Your task to perform on an android device: change alarm snooze length Image 0: 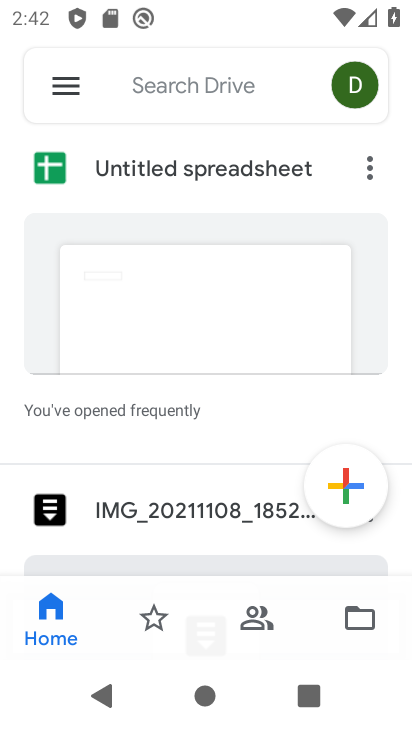
Step 0: press home button
Your task to perform on an android device: change alarm snooze length Image 1: 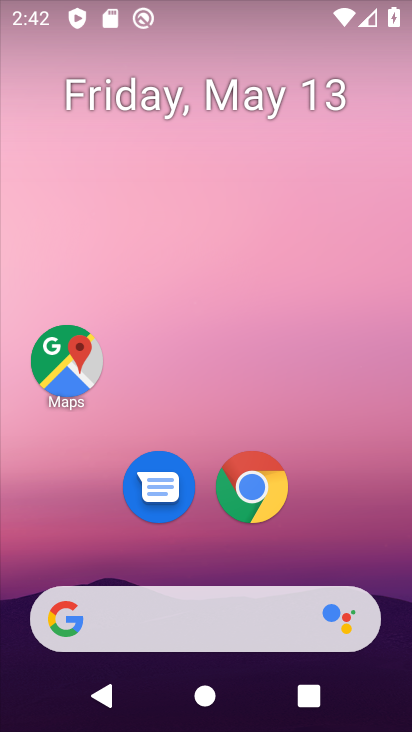
Step 1: drag from (342, 536) to (207, 102)
Your task to perform on an android device: change alarm snooze length Image 2: 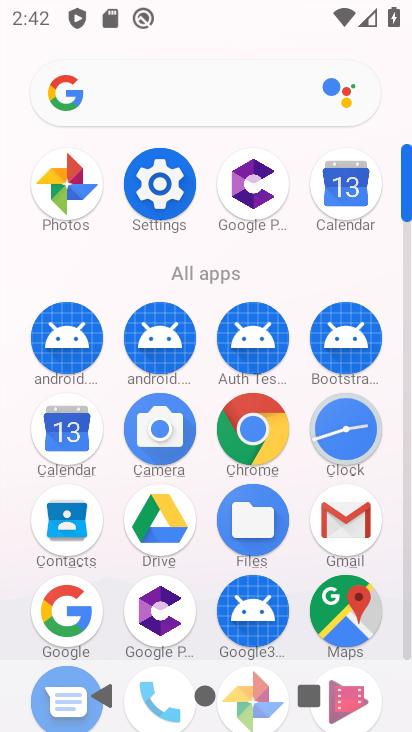
Step 2: click (323, 436)
Your task to perform on an android device: change alarm snooze length Image 3: 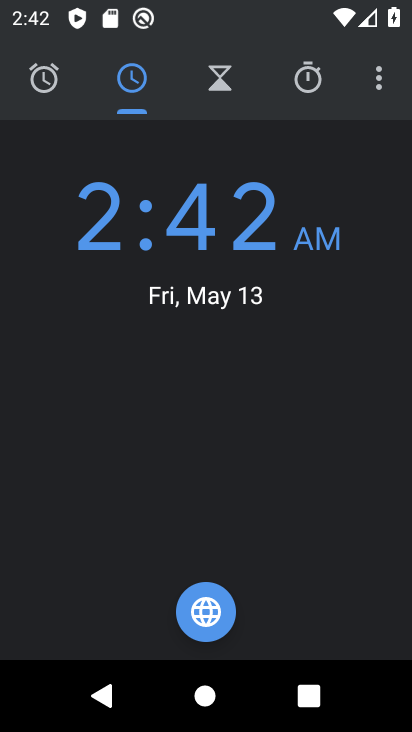
Step 3: click (374, 92)
Your task to perform on an android device: change alarm snooze length Image 4: 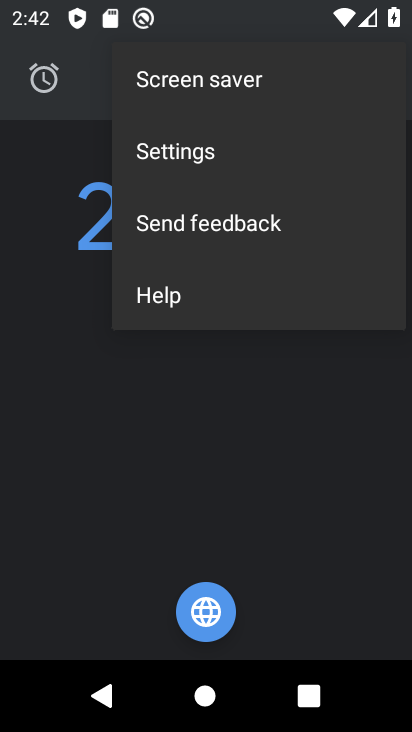
Step 4: click (173, 146)
Your task to perform on an android device: change alarm snooze length Image 5: 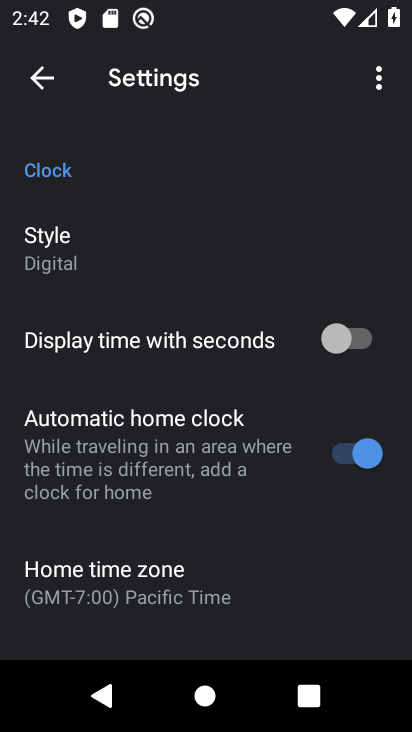
Step 5: drag from (159, 482) to (162, 120)
Your task to perform on an android device: change alarm snooze length Image 6: 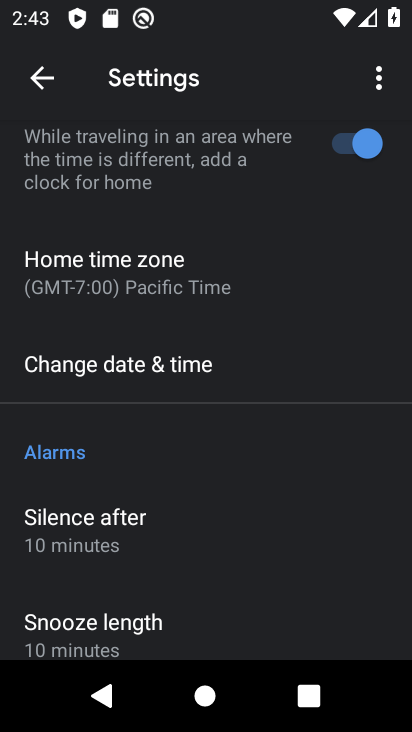
Step 6: drag from (139, 559) to (129, 325)
Your task to perform on an android device: change alarm snooze length Image 7: 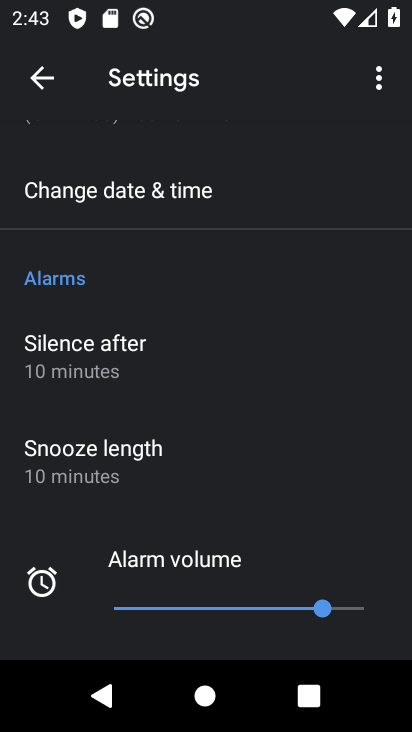
Step 7: click (92, 454)
Your task to perform on an android device: change alarm snooze length Image 8: 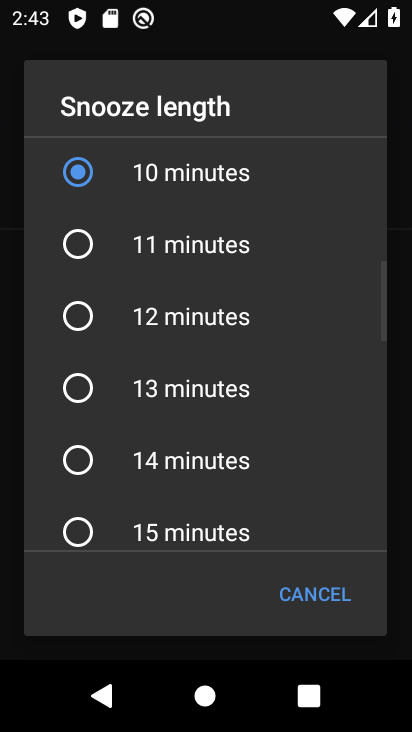
Step 8: click (78, 315)
Your task to perform on an android device: change alarm snooze length Image 9: 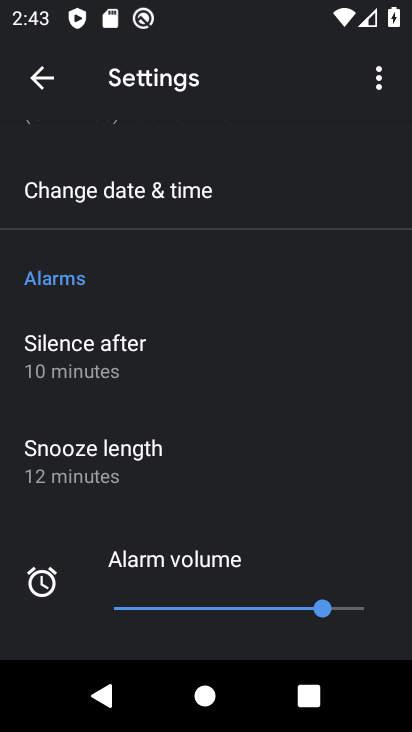
Step 9: task complete